Your task to perform on an android device: Show the shopping cart on amazon.com. Image 0: 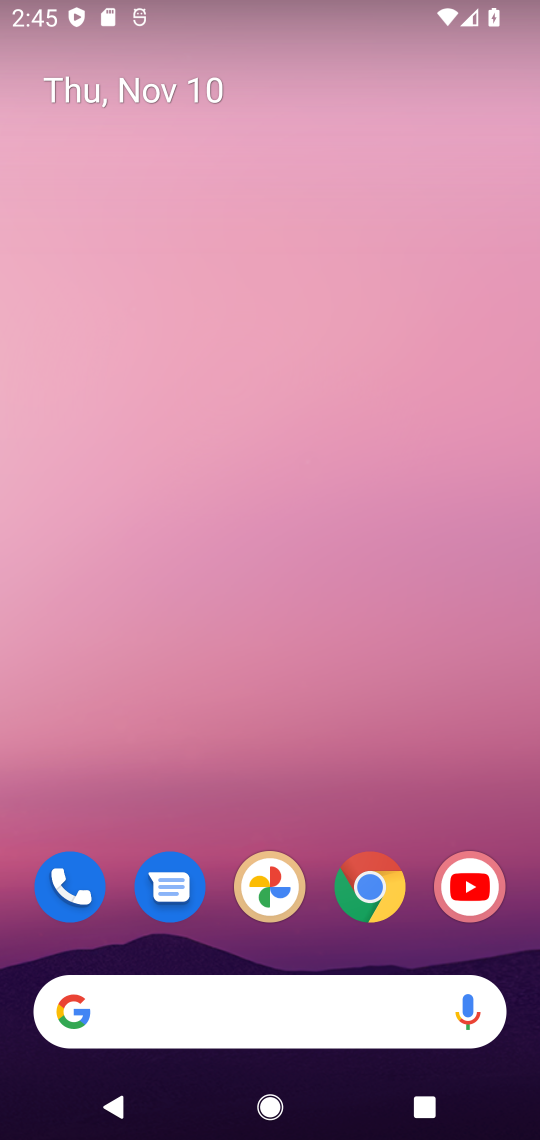
Step 0: drag from (205, 938) to (152, 108)
Your task to perform on an android device: Show the shopping cart on amazon.com. Image 1: 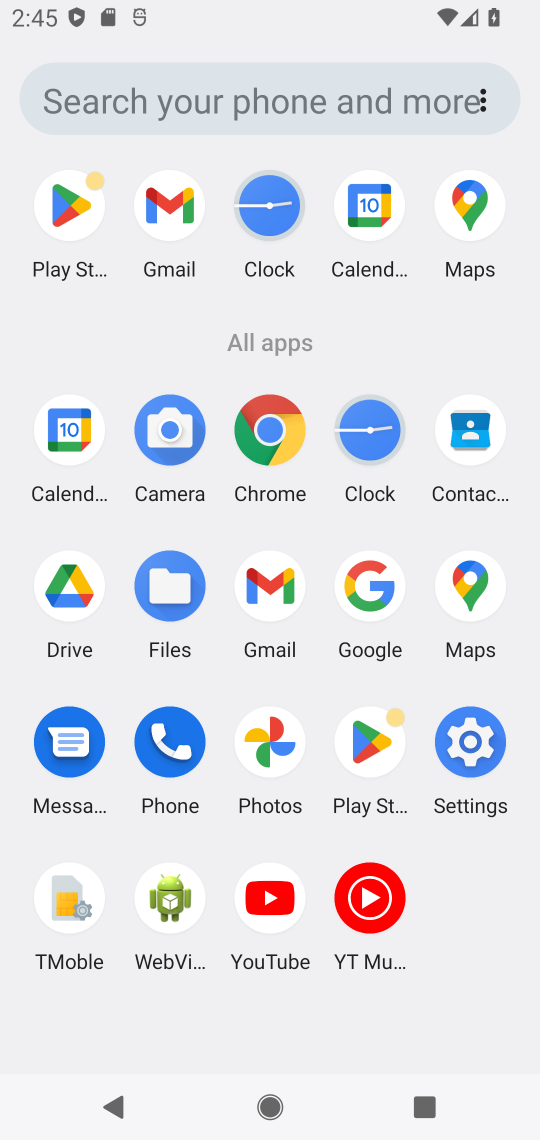
Step 1: click (272, 446)
Your task to perform on an android device: Show the shopping cart on amazon.com. Image 2: 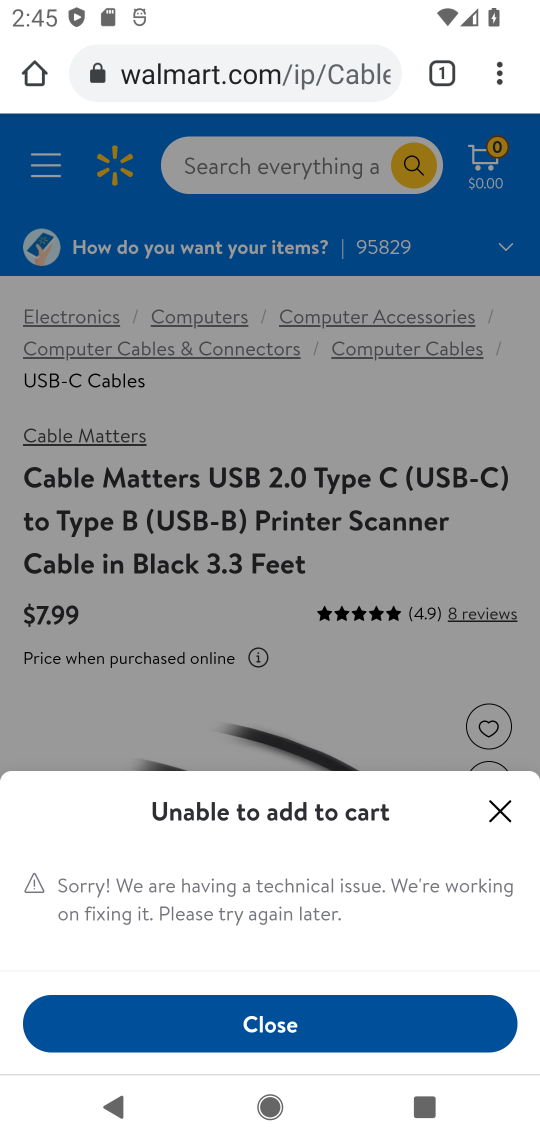
Step 2: click (221, 88)
Your task to perform on an android device: Show the shopping cart on amazon.com. Image 3: 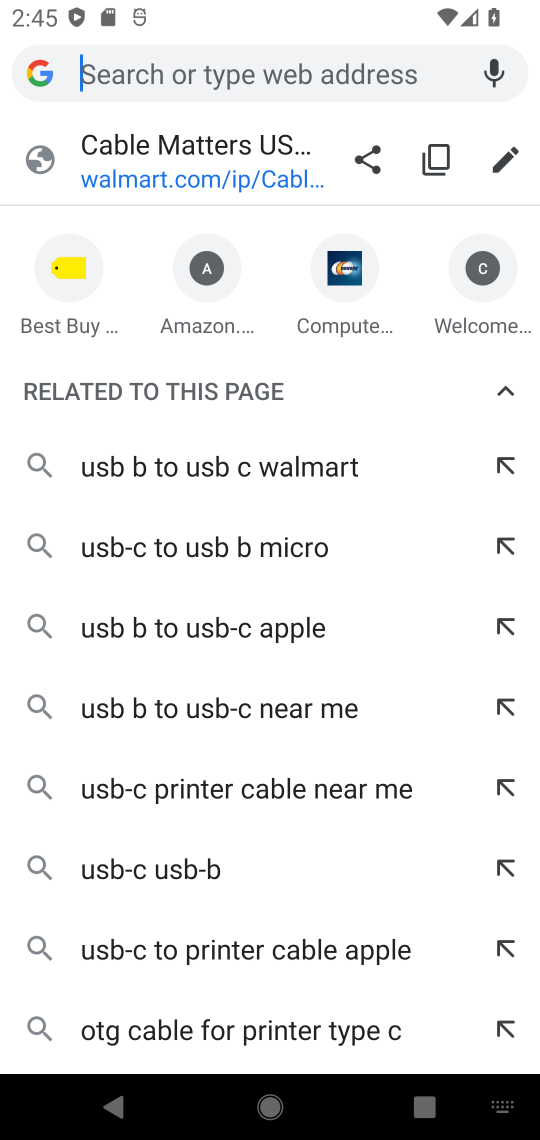
Step 3: type "amazon.com"
Your task to perform on an android device: Show the shopping cart on amazon.com. Image 4: 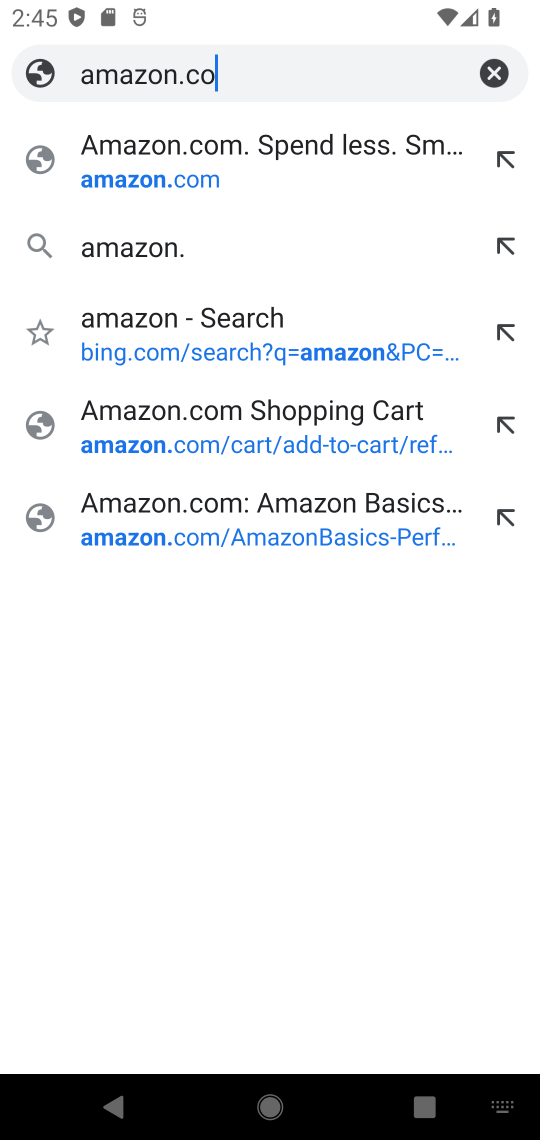
Step 4: press enter
Your task to perform on an android device: Show the shopping cart on amazon.com. Image 5: 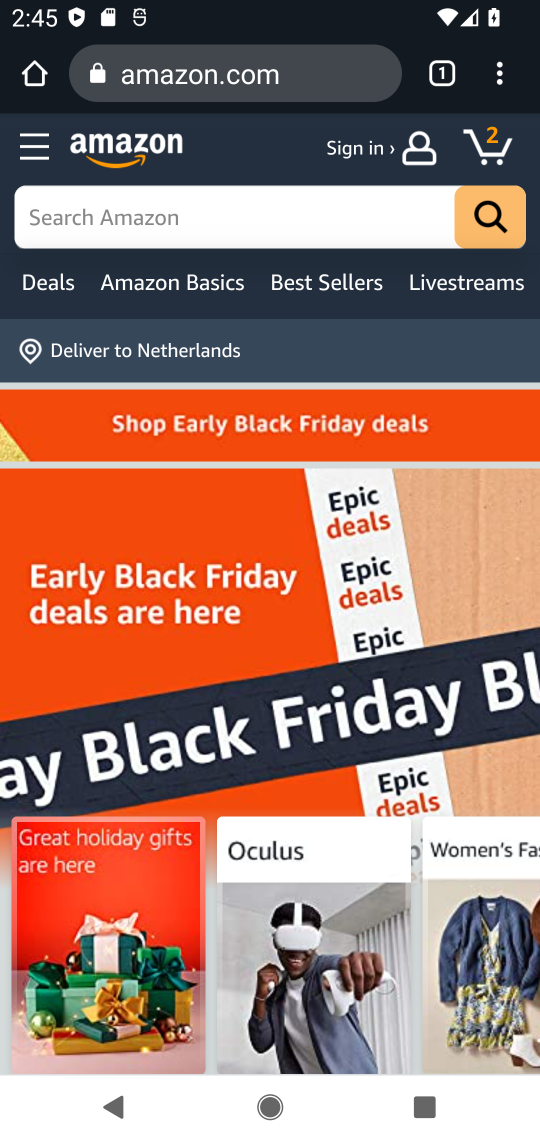
Step 5: click (499, 147)
Your task to perform on an android device: Show the shopping cart on amazon.com. Image 6: 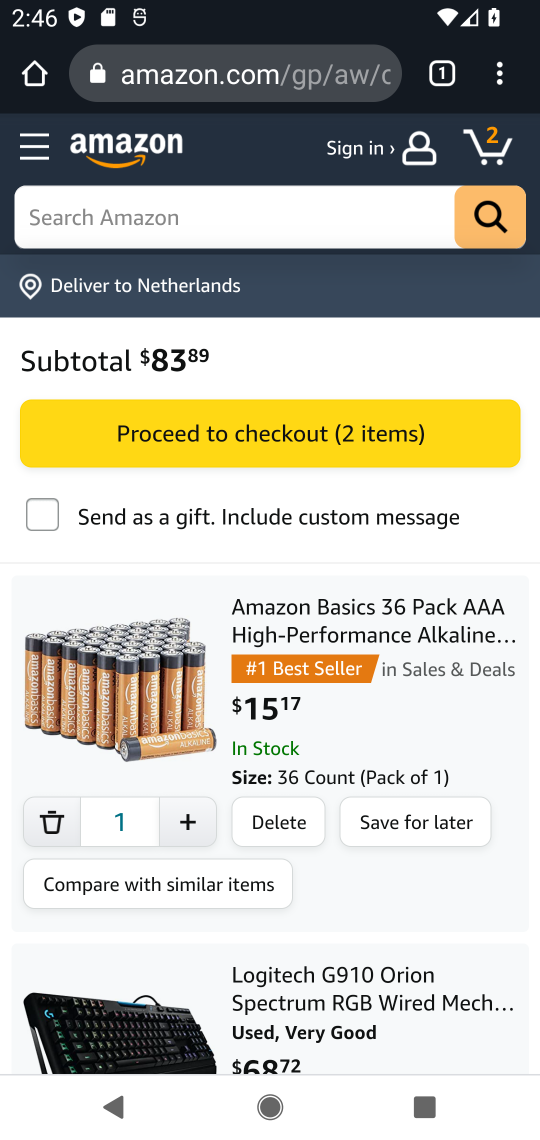
Step 6: task complete